Your task to perform on an android device: Go to display settings Image 0: 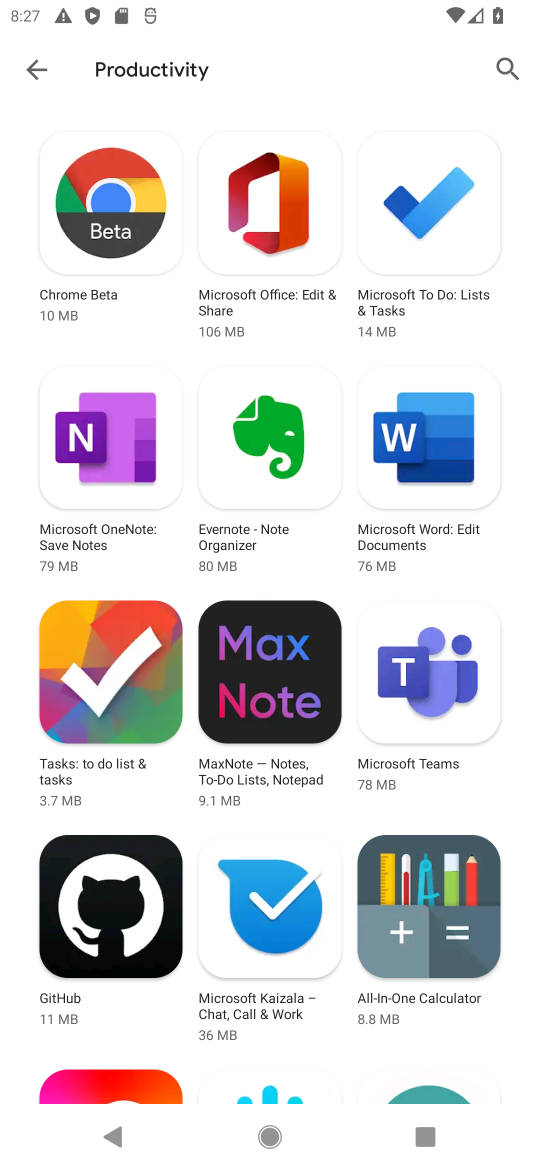
Step 0: press home button
Your task to perform on an android device: Go to display settings Image 1: 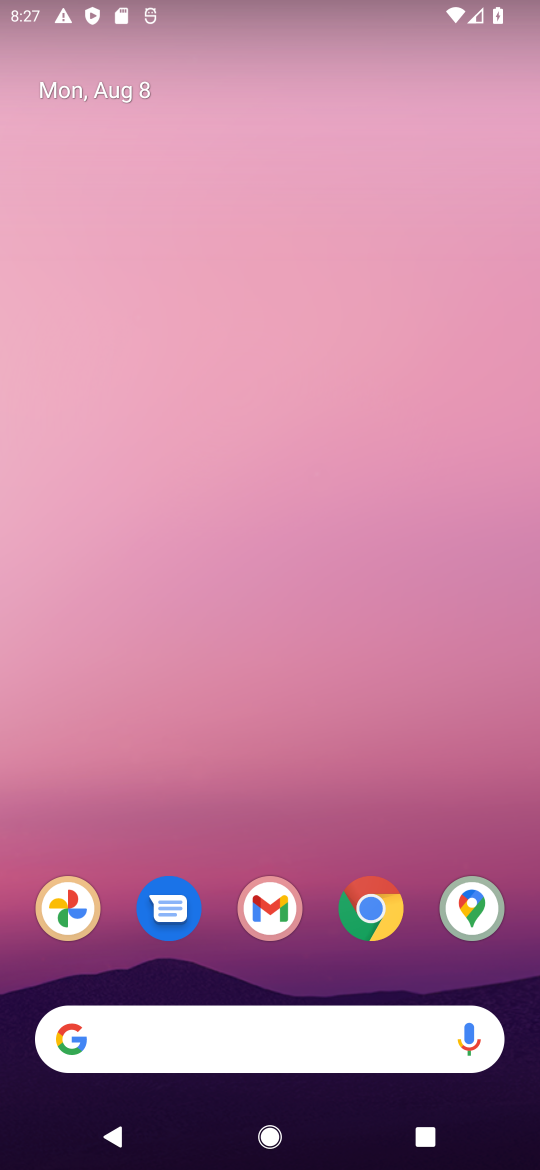
Step 1: drag from (198, 834) to (247, 367)
Your task to perform on an android device: Go to display settings Image 2: 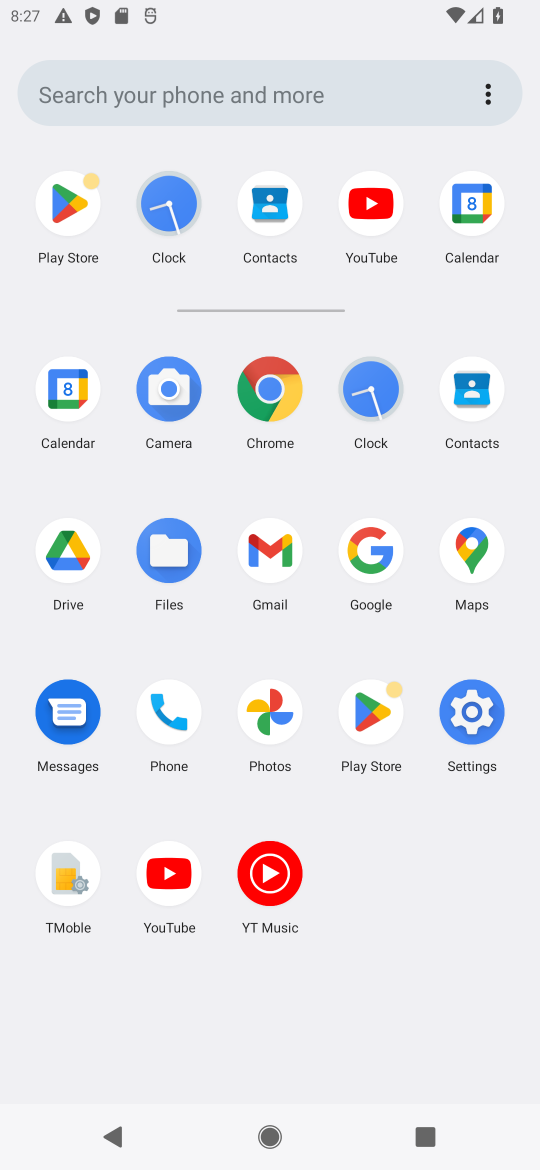
Step 2: click (477, 792)
Your task to perform on an android device: Go to display settings Image 3: 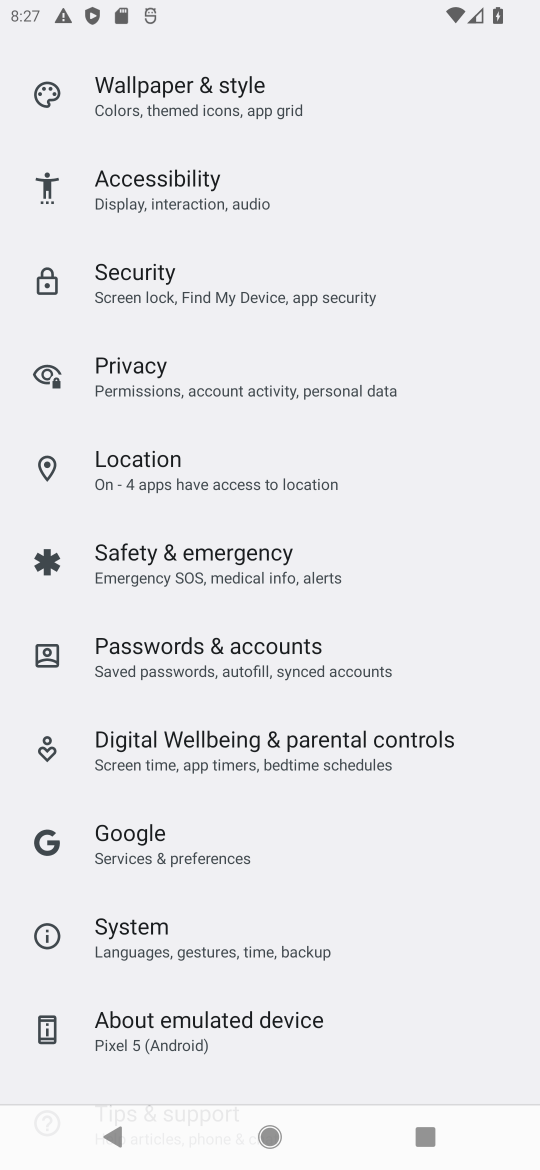
Step 3: drag from (287, 130) to (454, 1151)
Your task to perform on an android device: Go to display settings Image 4: 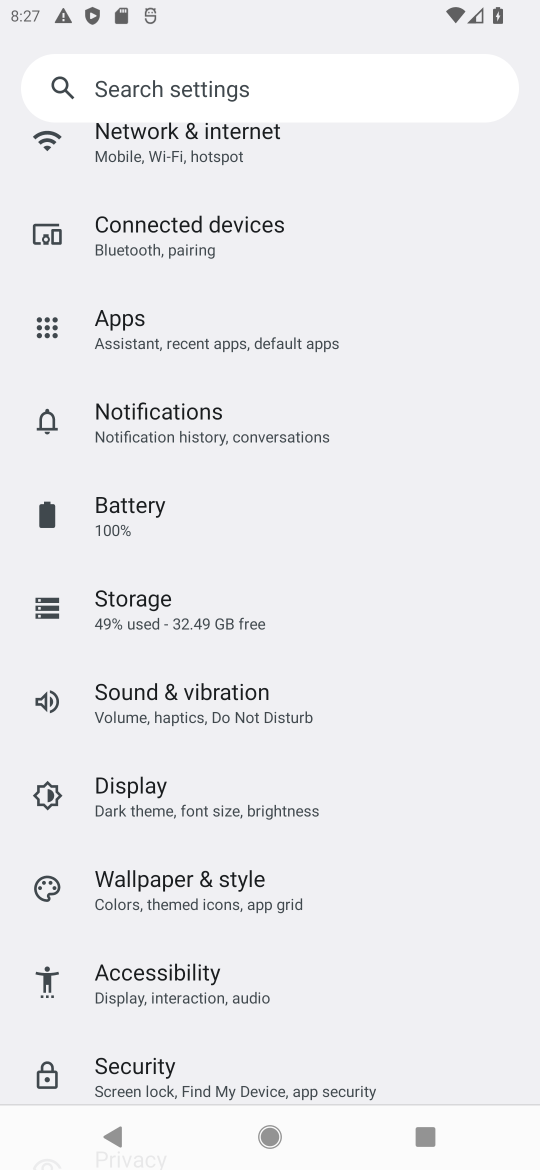
Step 4: drag from (343, 293) to (115, 1163)
Your task to perform on an android device: Go to display settings Image 5: 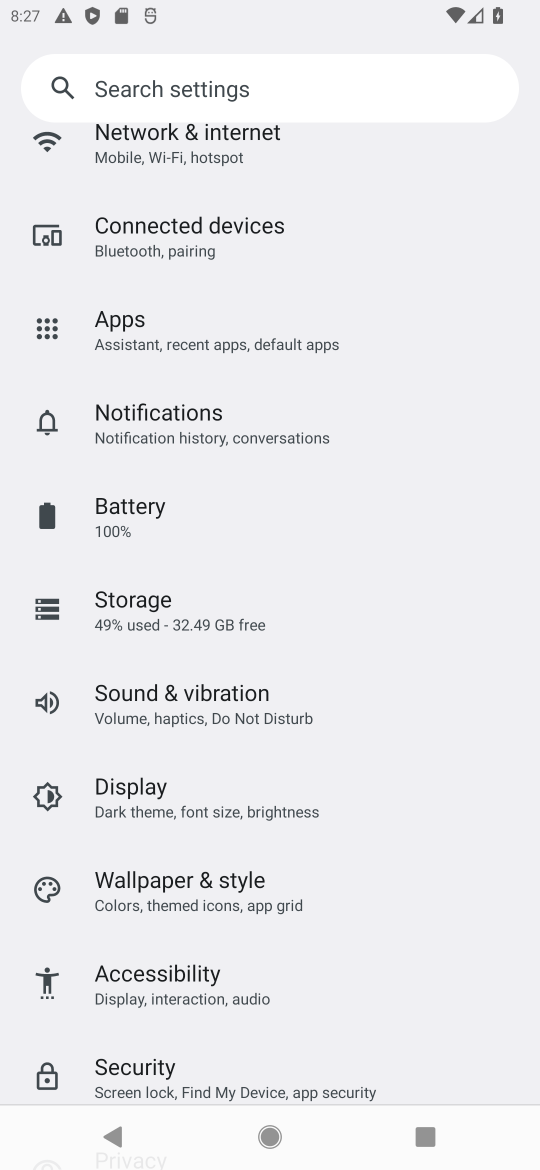
Step 5: drag from (378, 162) to (237, 1043)
Your task to perform on an android device: Go to display settings Image 6: 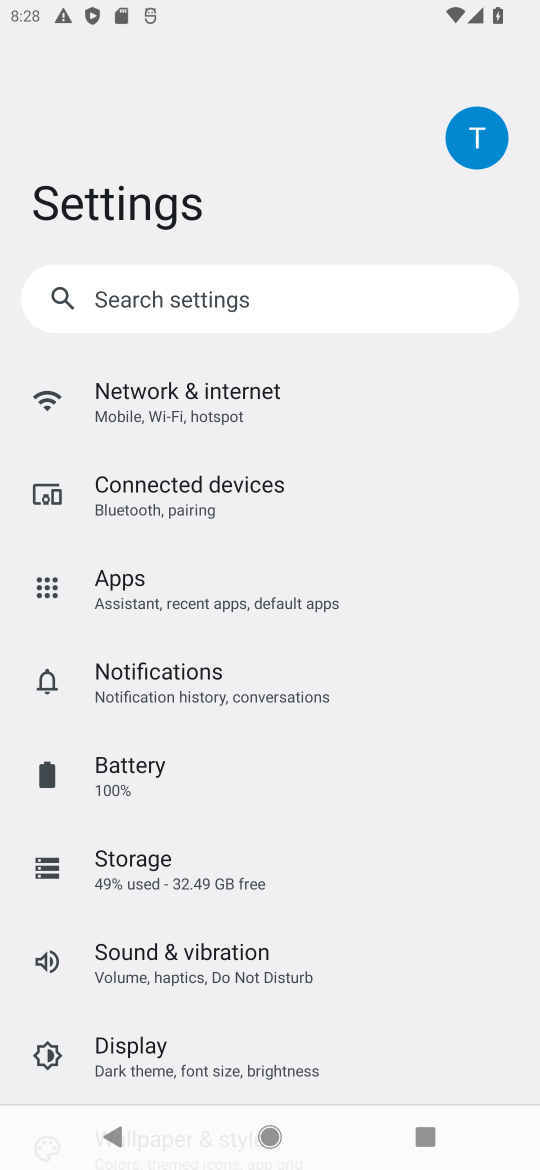
Step 6: click (185, 1035)
Your task to perform on an android device: Go to display settings Image 7: 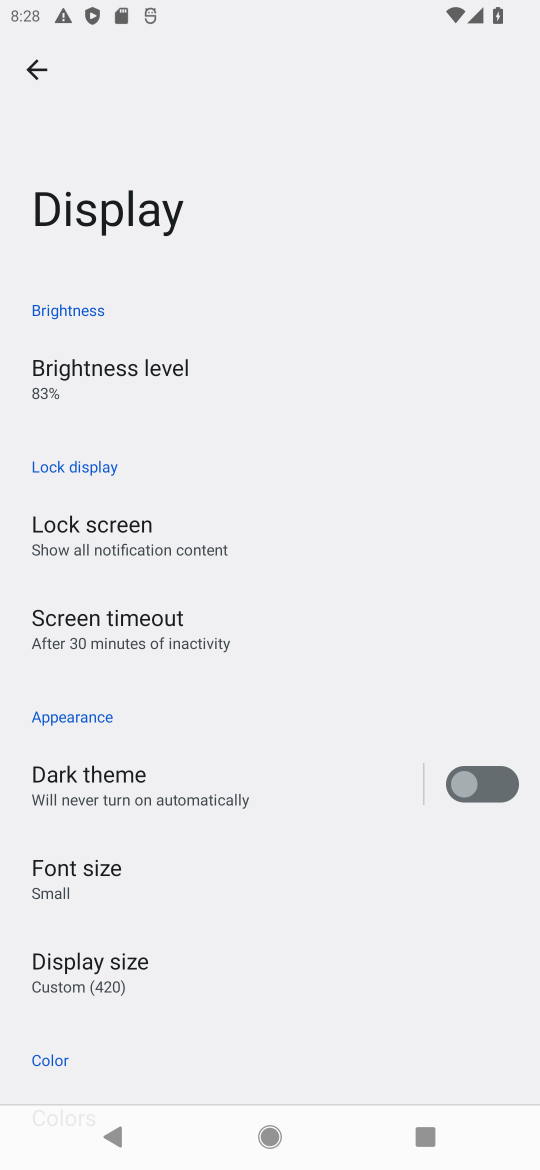
Step 7: task complete